Your task to perform on an android device: Set the phone to "Do not disturb". Image 0: 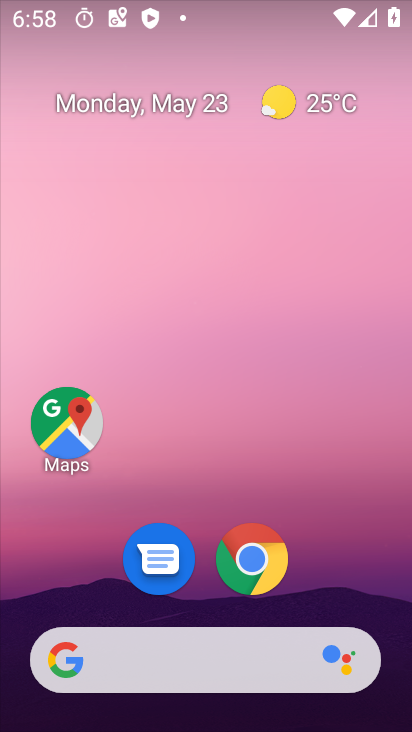
Step 0: drag from (205, 75) to (225, 474)
Your task to perform on an android device: Set the phone to "Do not disturb". Image 1: 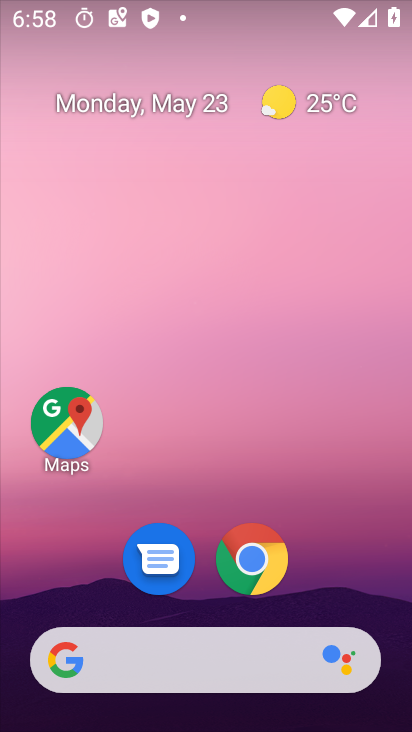
Step 1: drag from (246, 3) to (263, 552)
Your task to perform on an android device: Set the phone to "Do not disturb". Image 2: 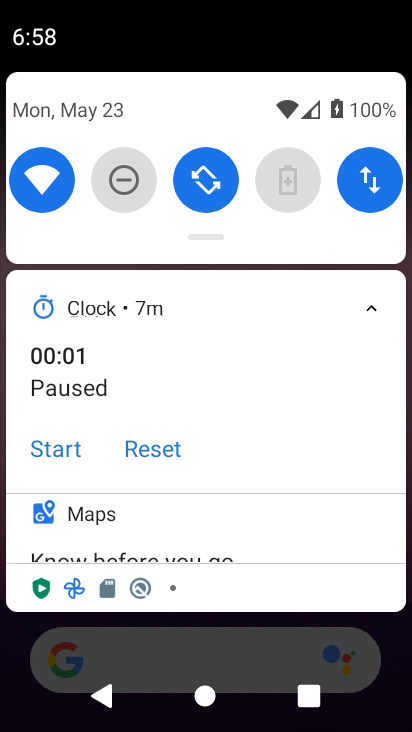
Step 2: click (126, 180)
Your task to perform on an android device: Set the phone to "Do not disturb". Image 3: 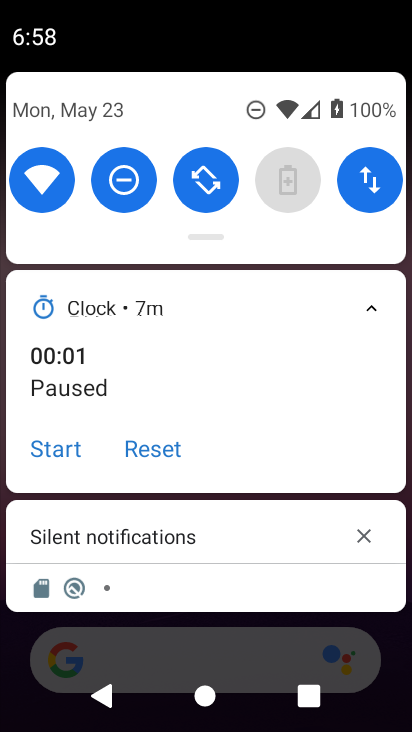
Step 3: task complete